Your task to perform on an android device: toggle javascript in the chrome app Image 0: 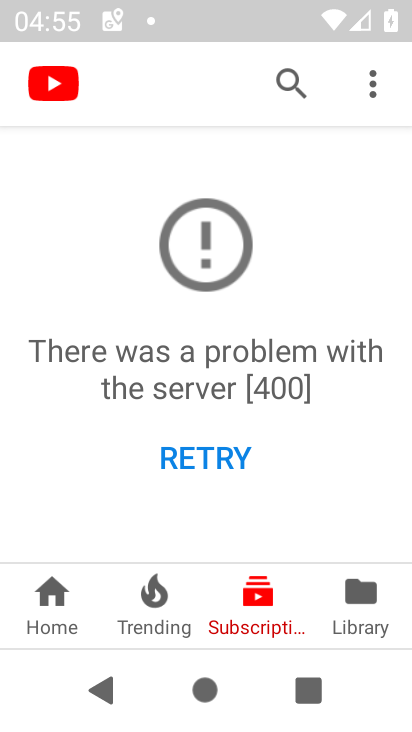
Step 0: press home button
Your task to perform on an android device: toggle javascript in the chrome app Image 1: 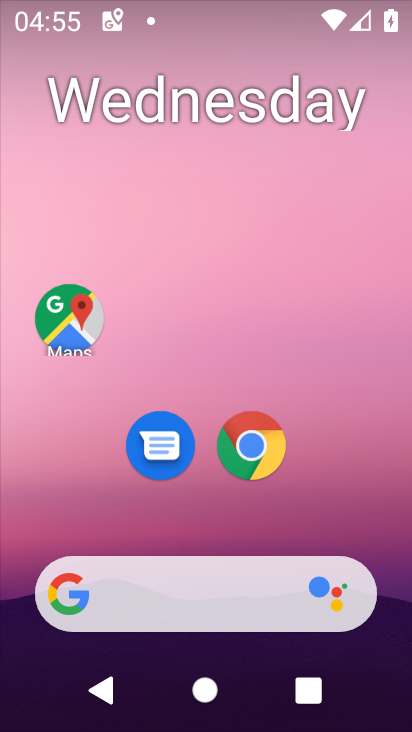
Step 1: click (241, 450)
Your task to perform on an android device: toggle javascript in the chrome app Image 2: 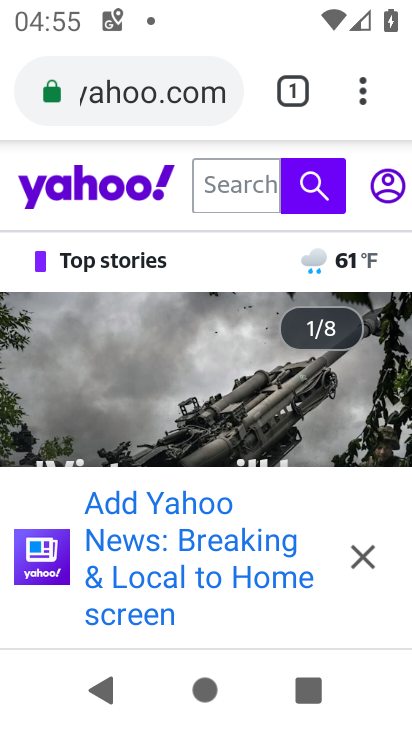
Step 2: click (372, 84)
Your task to perform on an android device: toggle javascript in the chrome app Image 3: 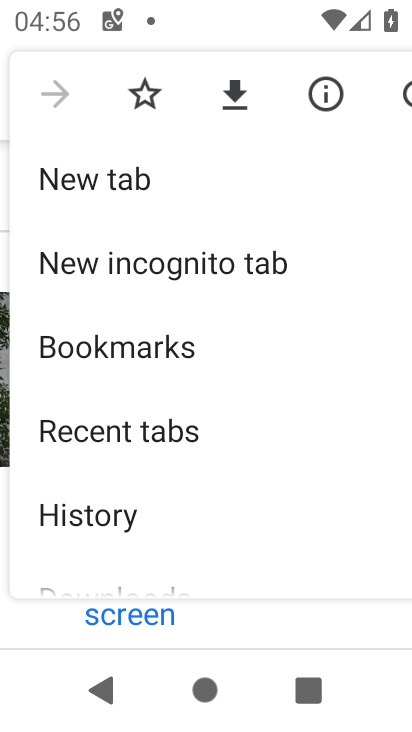
Step 3: drag from (113, 543) to (223, 167)
Your task to perform on an android device: toggle javascript in the chrome app Image 4: 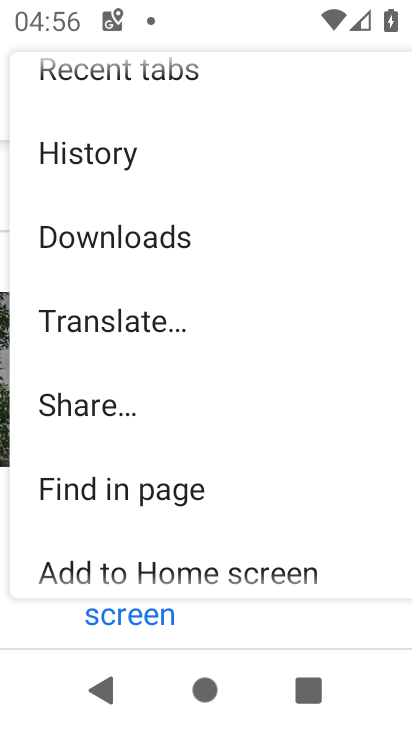
Step 4: drag from (194, 533) to (237, 258)
Your task to perform on an android device: toggle javascript in the chrome app Image 5: 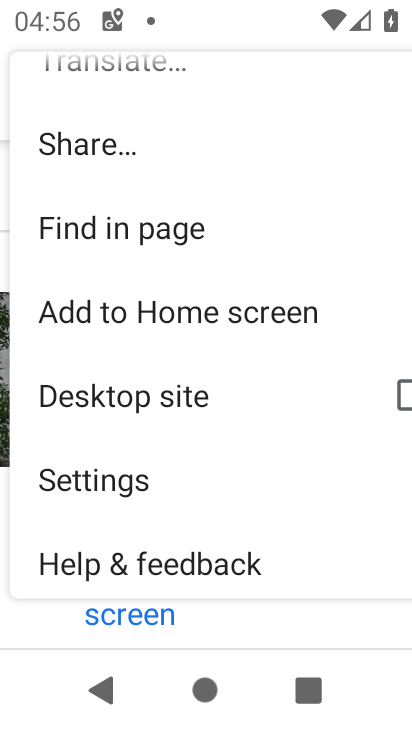
Step 5: click (132, 472)
Your task to perform on an android device: toggle javascript in the chrome app Image 6: 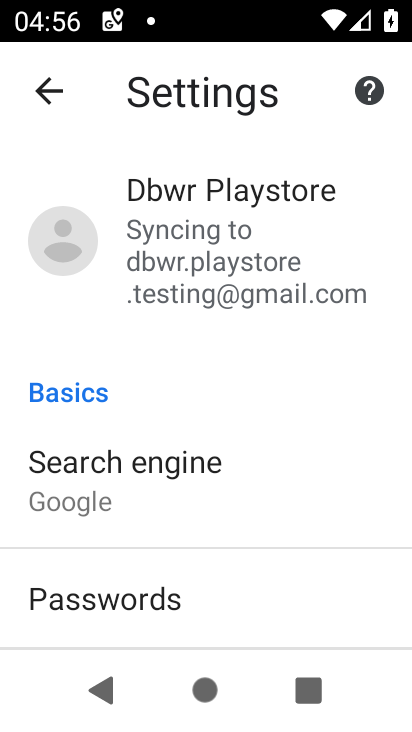
Step 6: drag from (180, 623) to (260, 67)
Your task to perform on an android device: toggle javascript in the chrome app Image 7: 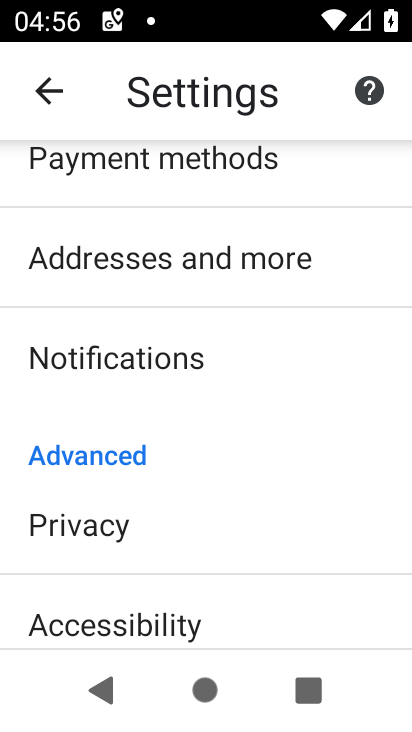
Step 7: drag from (165, 556) to (207, 252)
Your task to perform on an android device: toggle javascript in the chrome app Image 8: 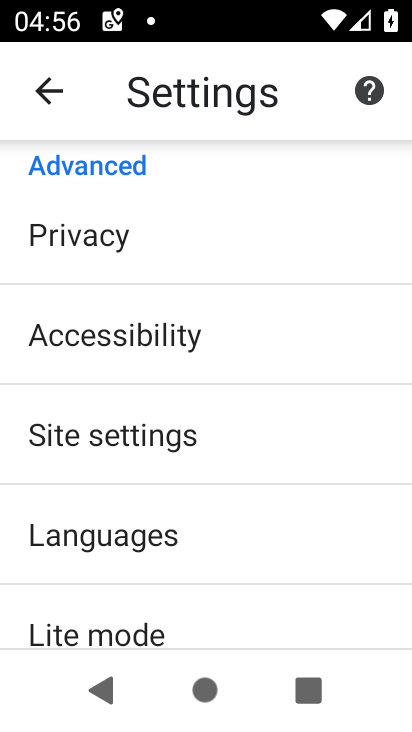
Step 8: click (161, 468)
Your task to perform on an android device: toggle javascript in the chrome app Image 9: 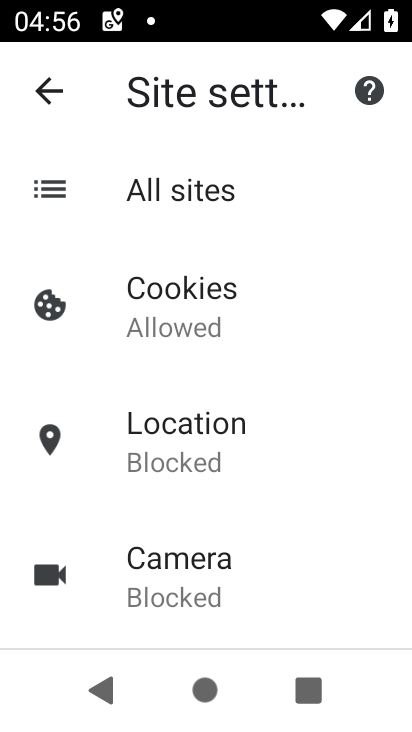
Step 9: drag from (182, 622) to (260, 200)
Your task to perform on an android device: toggle javascript in the chrome app Image 10: 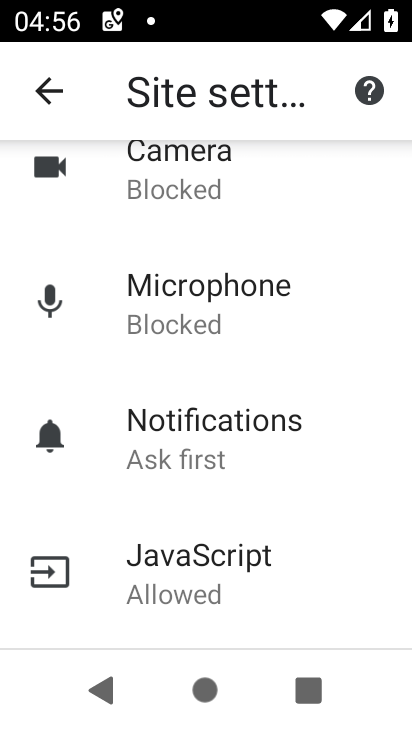
Step 10: click (192, 582)
Your task to perform on an android device: toggle javascript in the chrome app Image 11: 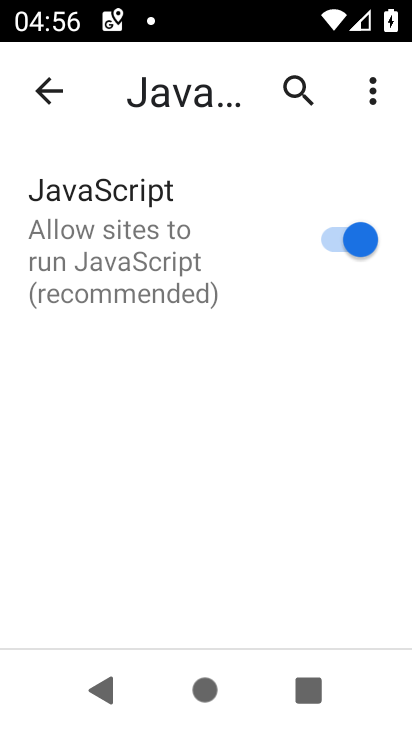
Step 11: click (349, 248)
Your task to perform on an android device: toggle javascript in the chrome app Image 12: 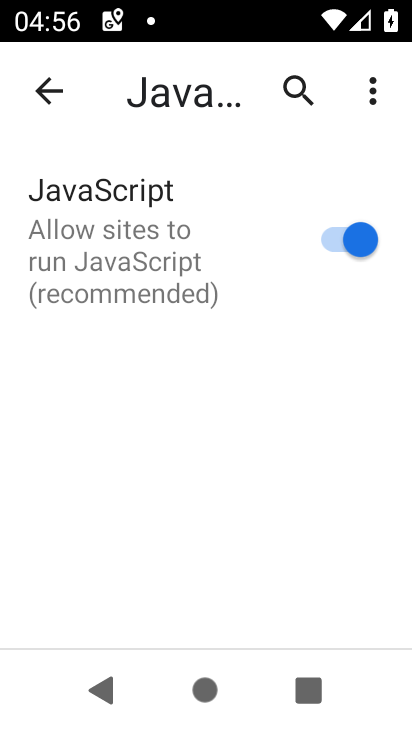
Step 12: click (349, 248)
Your task to perform on an android device: toggle javascript in the chrome app Image 13: 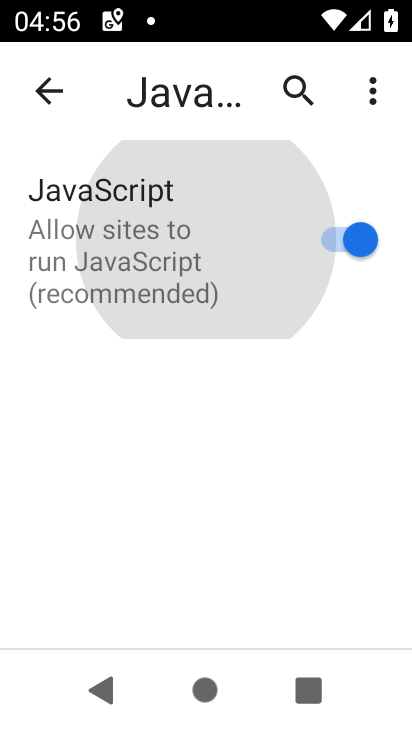
Step 13: click (349, 248)
Your task to perform on an android device: toggle javascript in the chrome app Image 14: 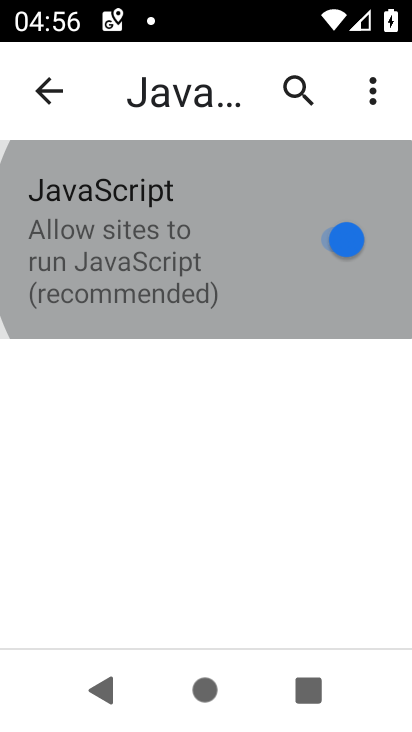
Step 14: click (349, 248)
Your task to perform on an android device: toggle javascript in the chrome app Image 15: 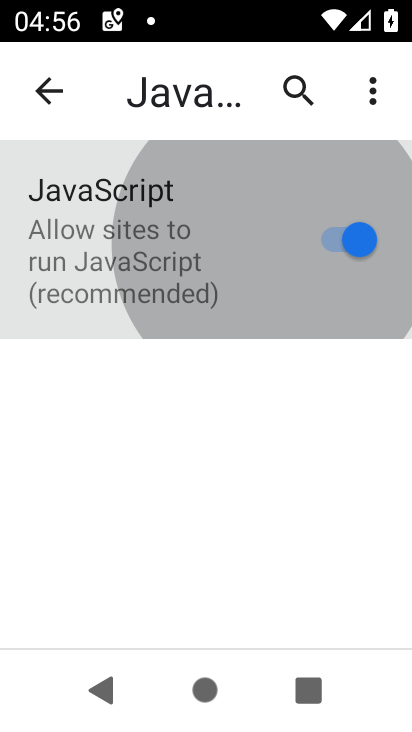
Step 15: click (349, 248)
Your task to perform on an android device: toggle javascript in the chrome app Image 16: 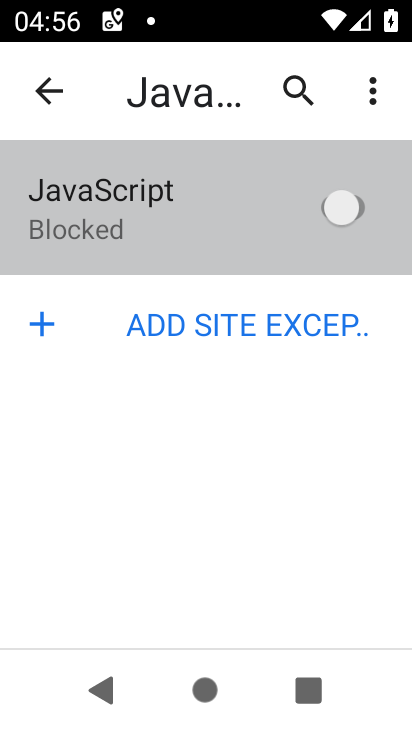
Step 16: click (349, 248)
Your task to perform on an android device: toggle javascript in the chrome app Image 17: 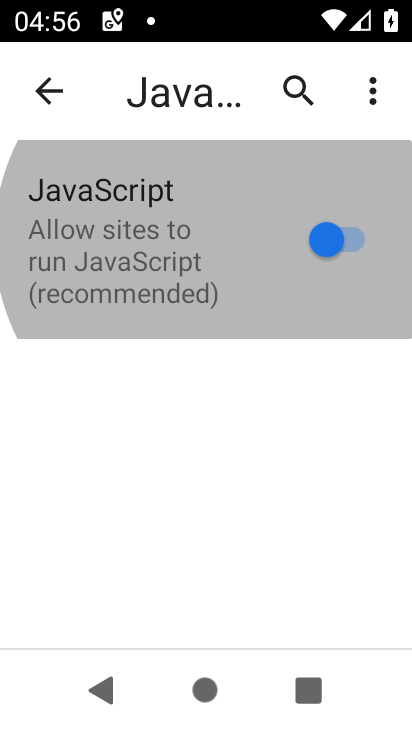
Step 17: click (349, 248)
Your task to perform on an android device: toggle javascript in the chrome app Image 18: 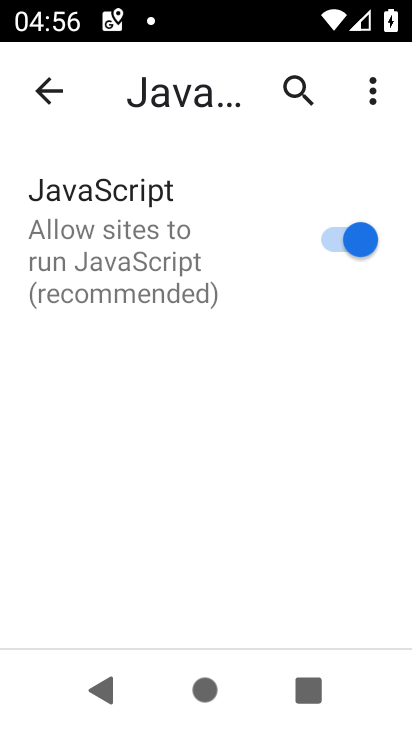
Step 18: task complete